Your task to perform on an android device: Open calendar and show me the first week of next month Image 0: 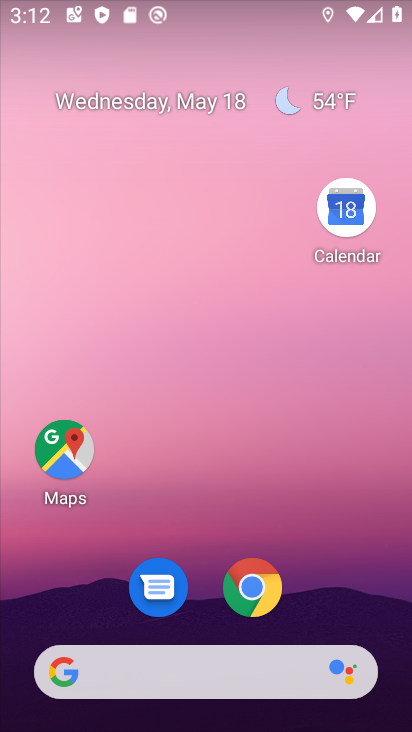
Step 0: drag from (199, 607) to (217, 167)
Your task to perform on an android device: Open calendar and show me the first week of next month Image 1: 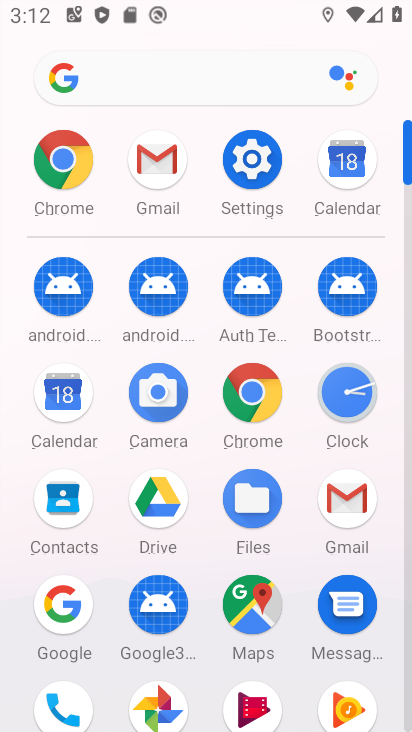
Step 1: drag from (210, 677) to (236, 226)
Your task to perform on an android device: Open calendar and show me the first week of next month Image 2: 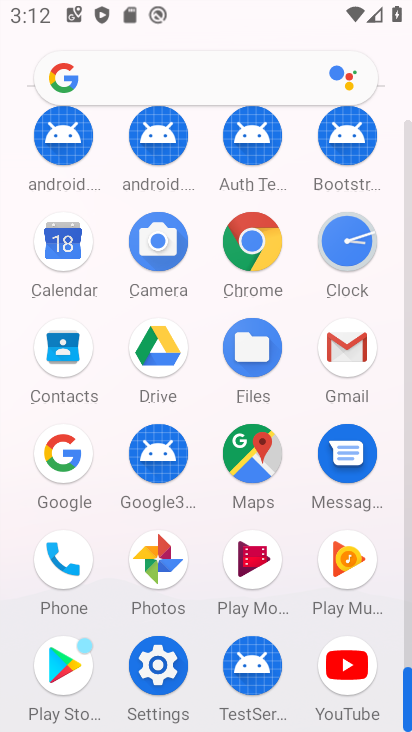
Step 2: click (67, 262)
Your task to perform on an android device: Open calendar and show me the first week of next month Image 3: 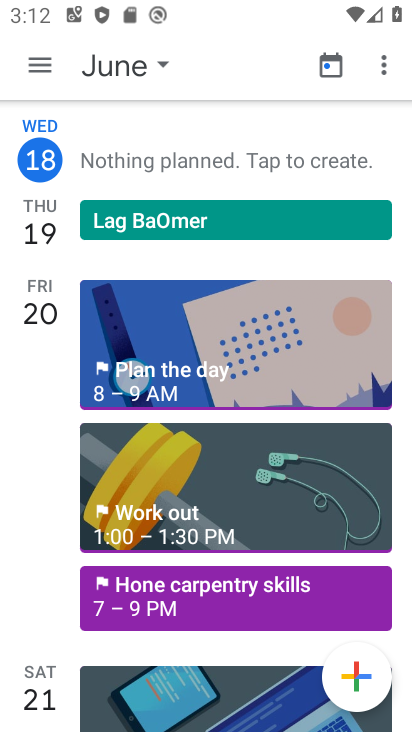
Step 3: click (103, 59)
Your task to perform on an android device: Open calendar and show me the first week of next month Image 4: 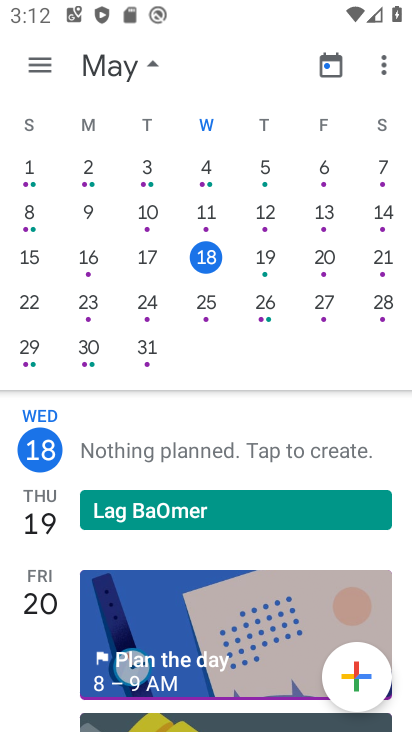
Step 4: drag from (388, 264) to (0, 260)
Your task to perform on an android device: Open calendar and show me the first week of next month Image 5: 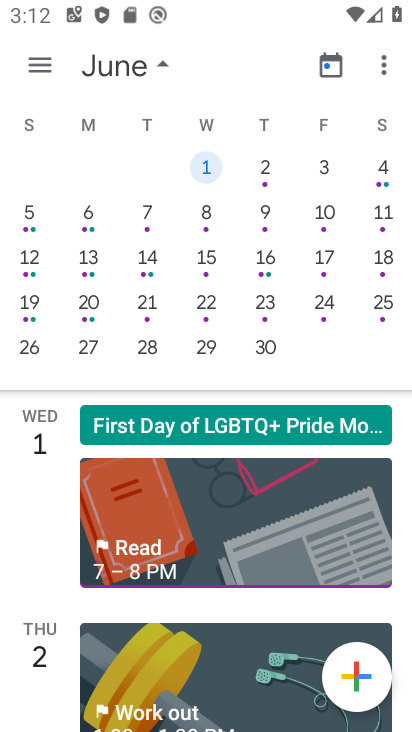
Step 5: click (266, 161)
Your task to perform on an android device: Open calendar and show me the first week of next month Image 6: 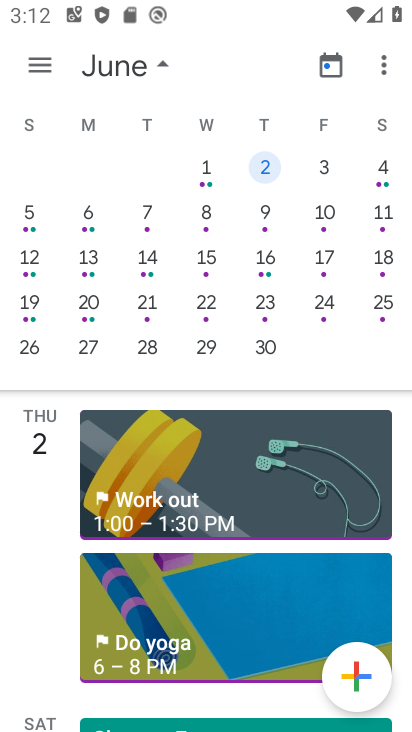
Step 6: task complete